Your task to perform on an android device: toggle javascript in the chrome app Image 0: 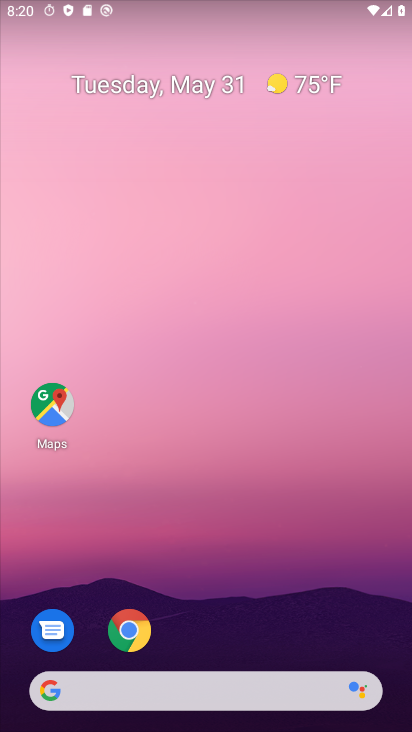
Step 0: drag from (235, 635) to (165, 203)
Your task to perform on an android device: toggle javascript in the chrome app Image 1: 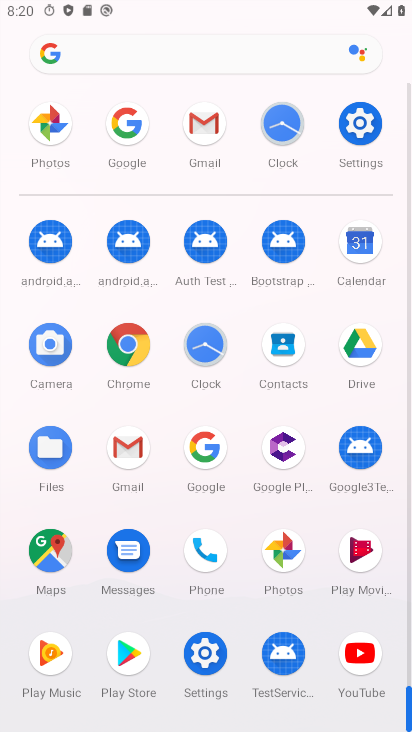
Step 1: click (135, 363)
Your task to perform on an android device: toggle javascript in the chrome app Image 2: 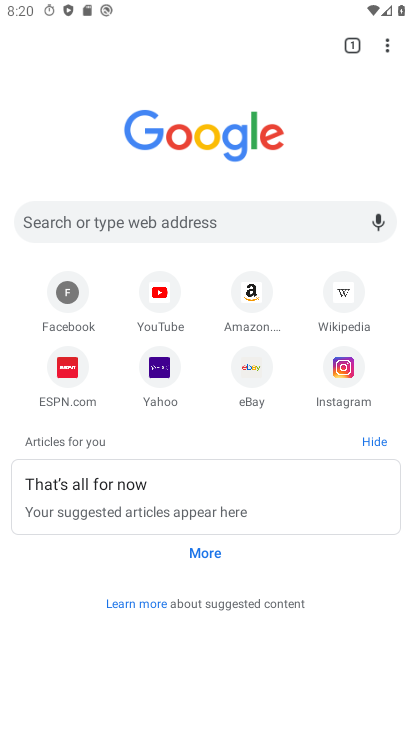
Step 2: click (391, 47)
Your task to perform on an android device: toggle javascript in the chrome app Image 3: 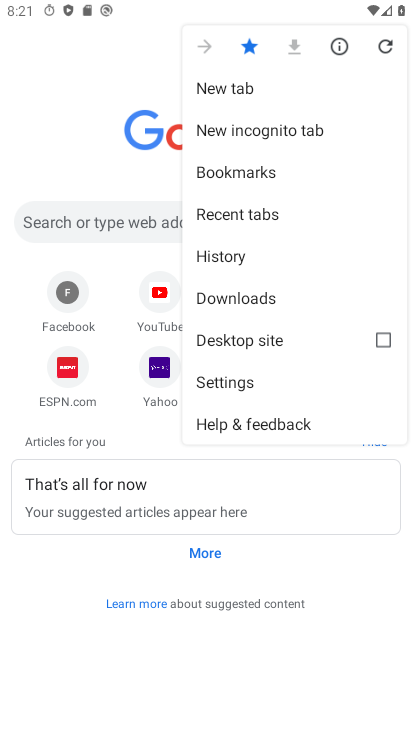
Step 3: click (231, 388)
Your task to perform on an android device: toggle javascript in the chrome app Image 4: 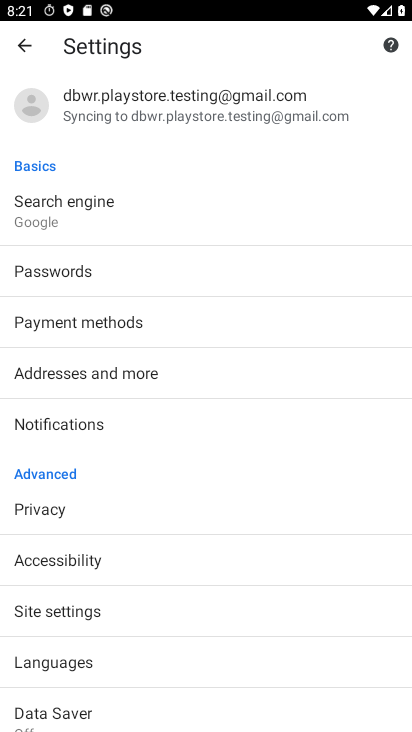
Step 4: drag from (163, 611) to (162, 420)
Your task to perform on an android device: toggle javascript in the chrome app Image 5: 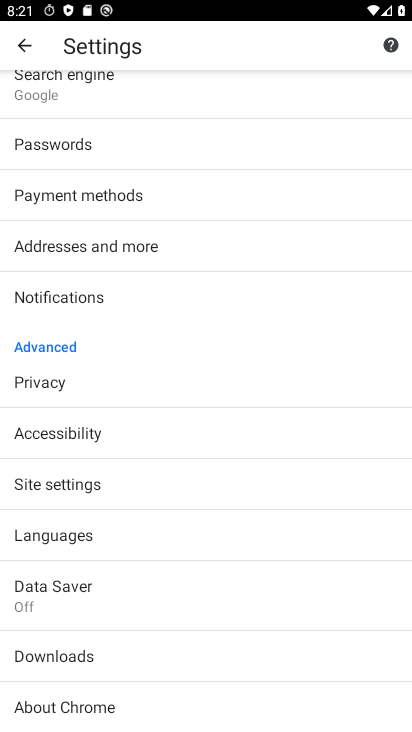
Step 5: drag from (98, 568) to (115, 411)
Your task to perform on an android device: toggle javascript in the chrome app Image 6: 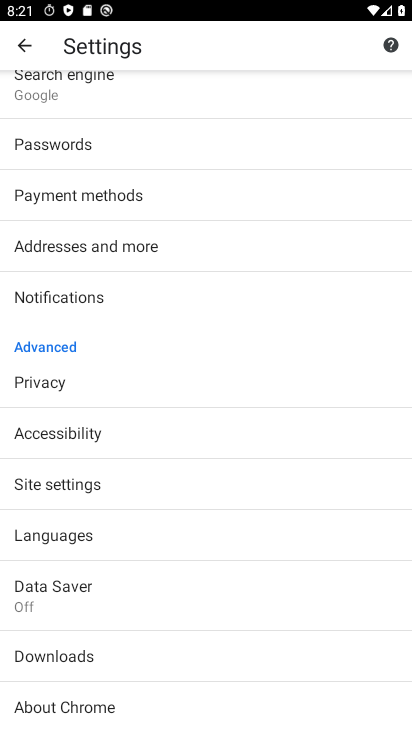
Step 6: click (80, 493)
Your task to perform on an android device: toggle javascript in the chrome app Image 7: 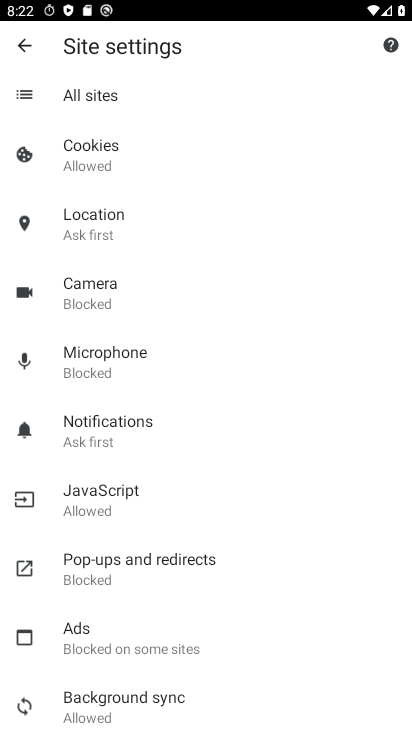
Step 7: click (160, 507)
Your task to perform on an android device: toggle javascript in the chrome app Image 8: 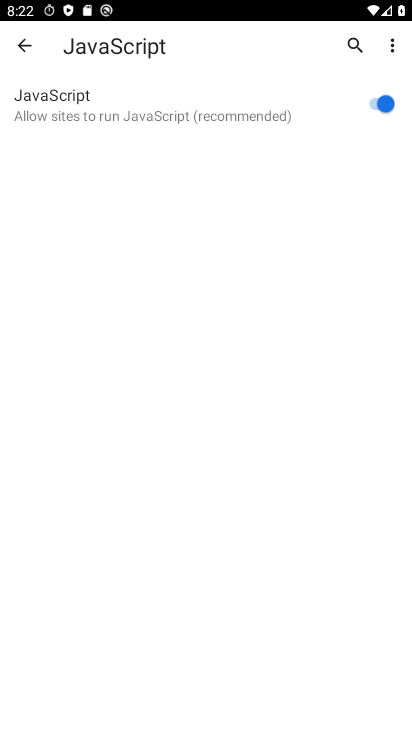
Step 8: click (369, 99)
Your task to perform on an android device: toggle javascript in the chrome app Image 9: 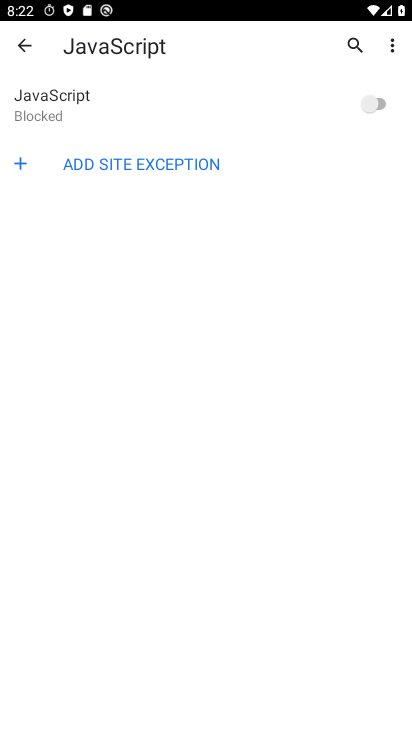
Step 9: task complete